Your task to perform on an android device: set the timer Image 0: 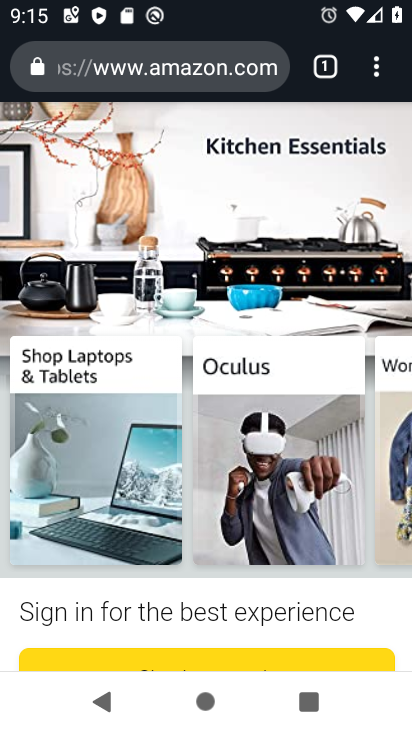
Step 0: press home button
Your task to perform on an android device: set the timer Image 1: 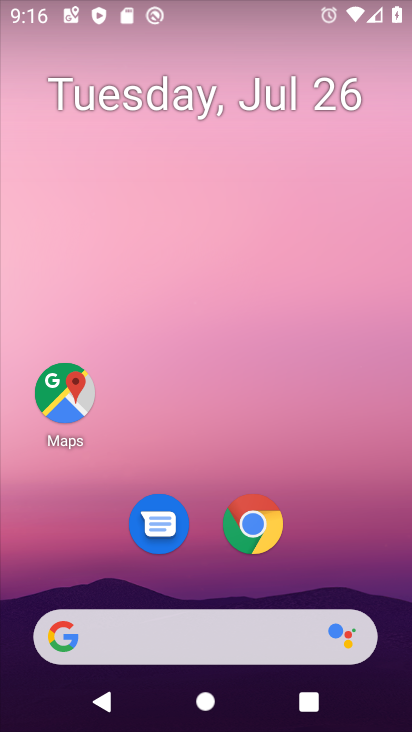
Step 1: drag from (160, 645) to (237, 161)
Your task to perform on an android device: set the timer Image 2: 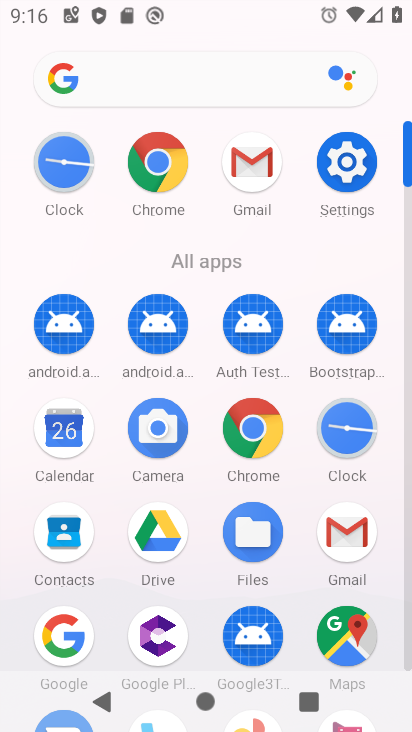
Step 2: click (67, 168)
Your task to perform on an android device: set the timer Image 3: 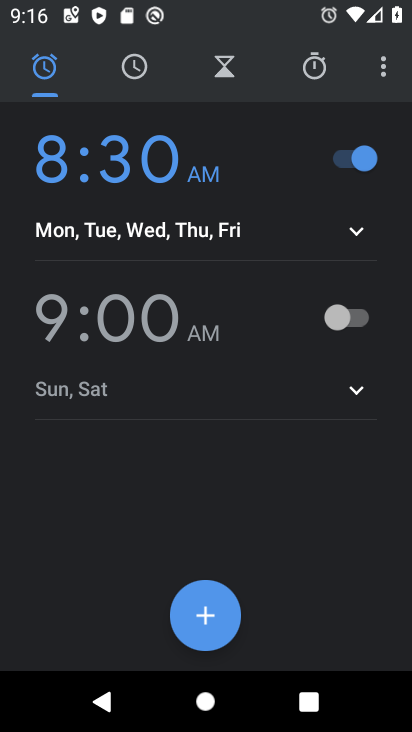
Step 3: click (230, 78)
Your task to perform on an android device: set the timer Image 4: 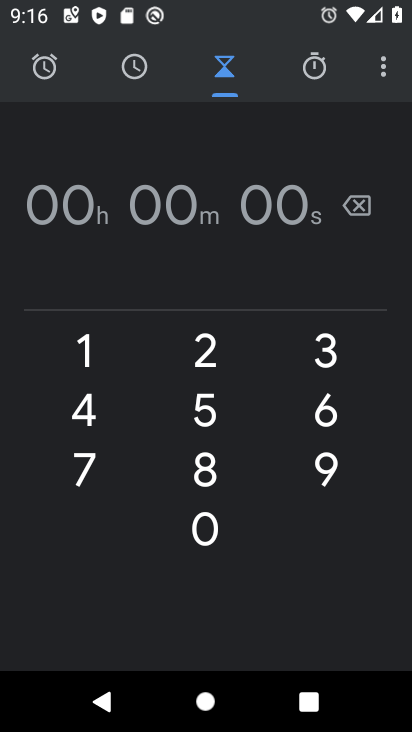
Step 4: click (84, 460)
Your task to perform on an android device: set the timer Image 5: 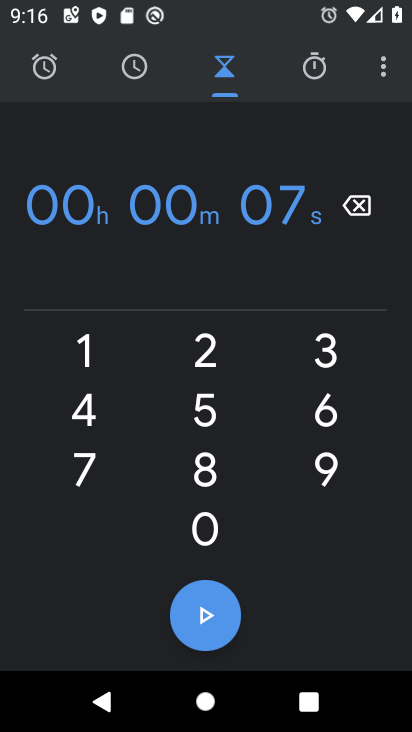
Step 5: click (319, 340)
Your task to perform on an android device: set the timer Image 6: 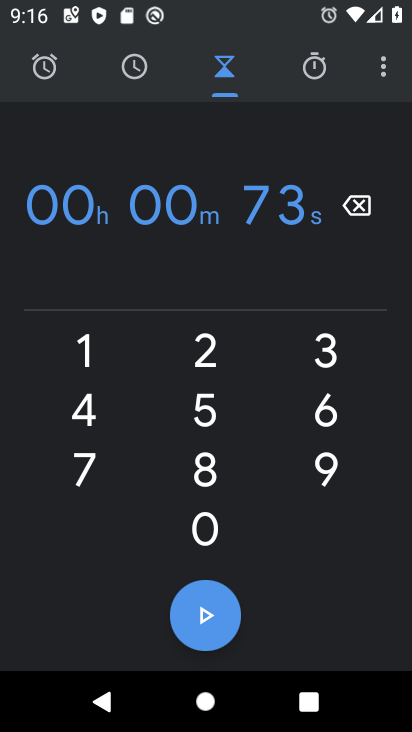
Step 6: click (220, 466)
Your task to perform on an android device: set the timer Image 7: 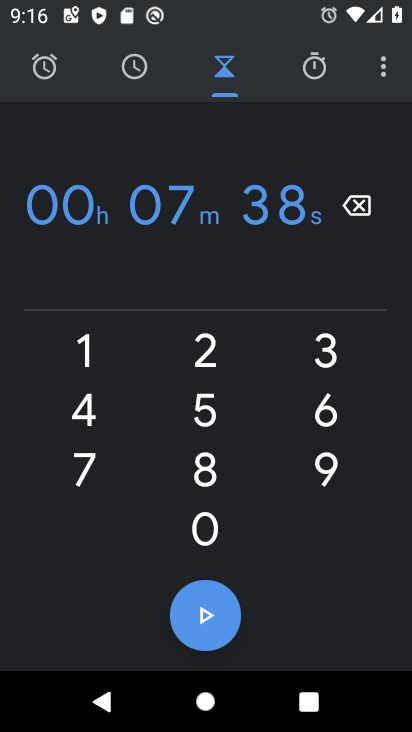
Step 7: click (209, 613)
Your task to perform on an android device: set the timer Image 8: 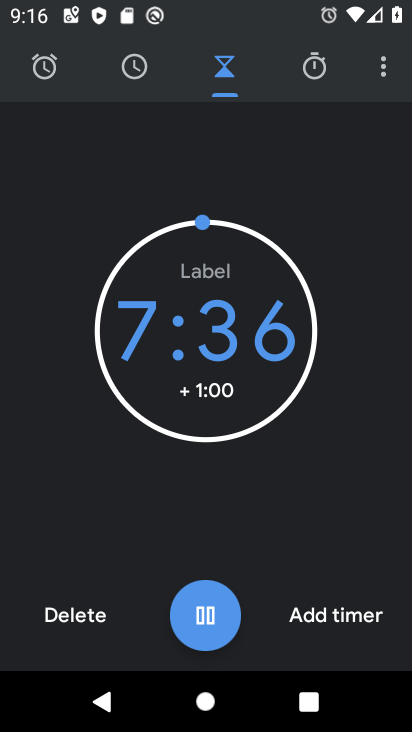
Step 8: click (207, 628)
Your task to perform on an android device: set the timer Image 9: 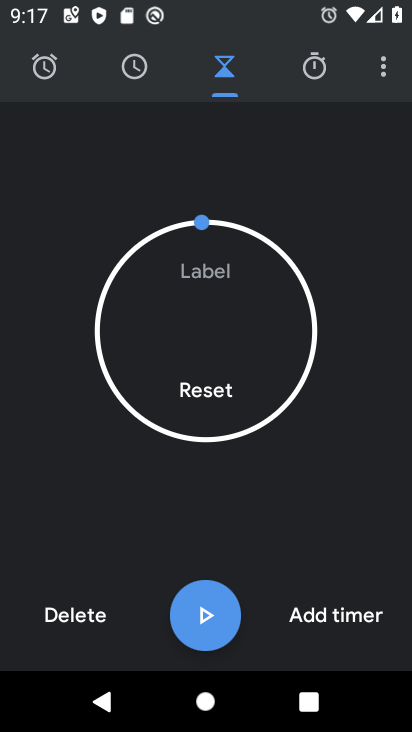
Step 9: task complete